Your task to perform on an android device: open sync settings in chrome Image 0: 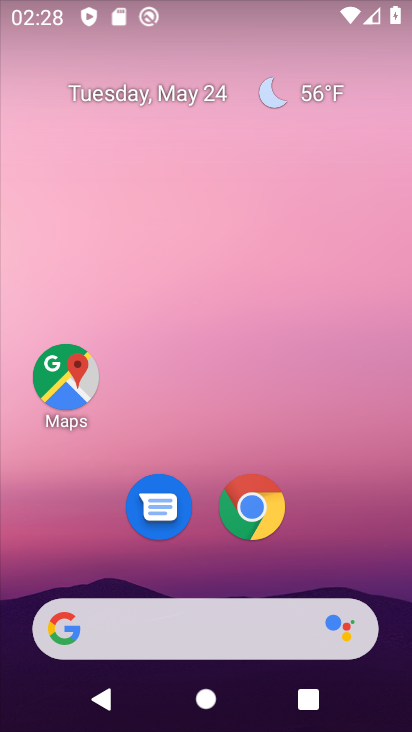
Step 0: click (263, 526)
Your task to perform on an android device: open sync settings in chrome Image 1: 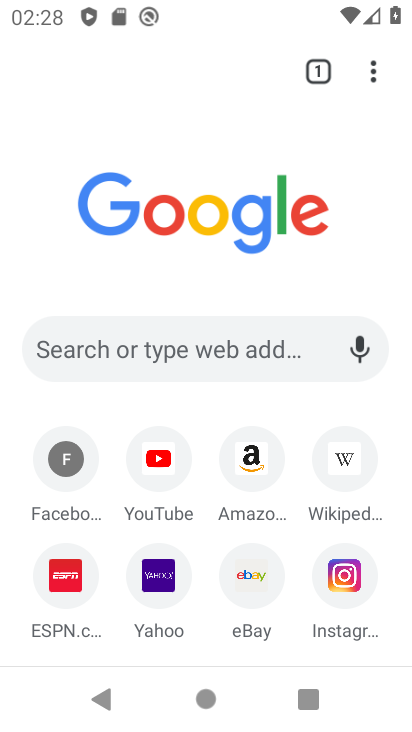
Step 1: click (379, 60)
Your task to perform on an android device: open sync settings in chrome Image 2: 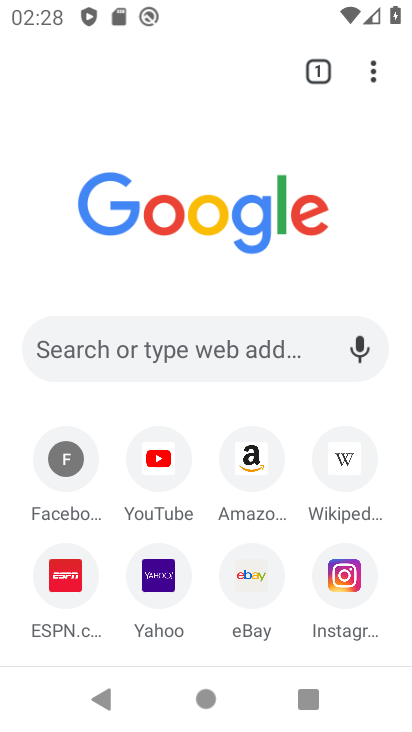
Step 2: click (394, 69)
Your task to perform on an android device: open sync settings in chrome Image 3: 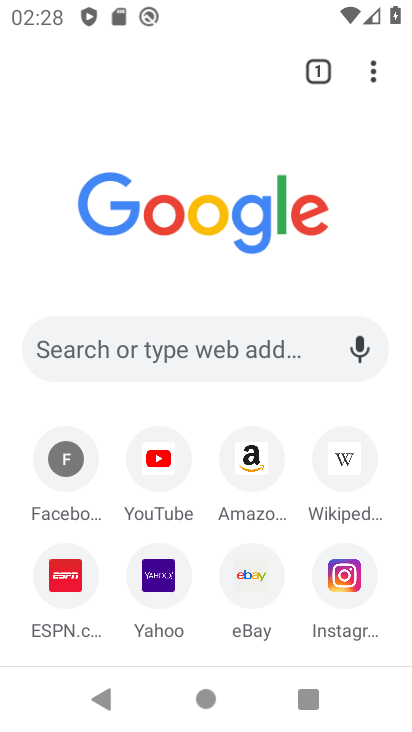
Step 3: click (375, 77)
Your task to perform on an android device: open sync settings in chrome Image 4: 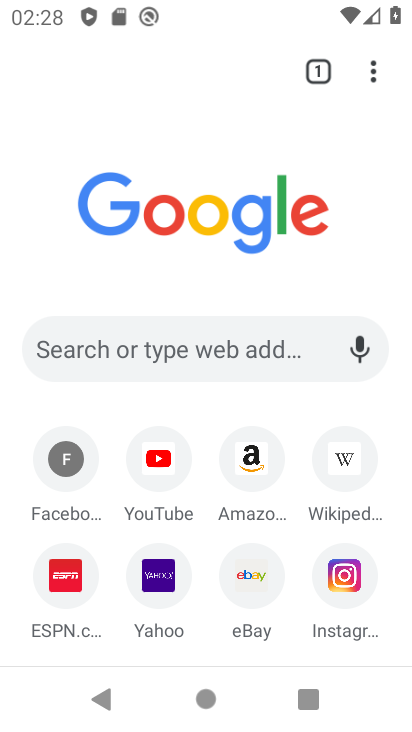
Step 4: click (375, 76)
Your task to perform on an android device: open sync settings in chrome Image 5: 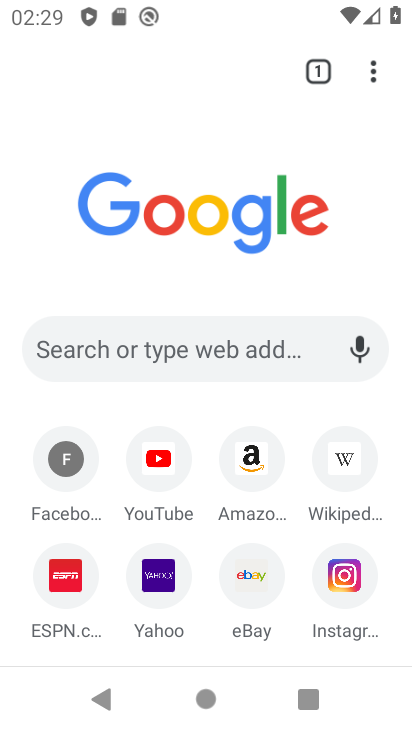
Step 5: click (378, 78)
Your task to perform on an android device: open sync settings in chrome Image 6: 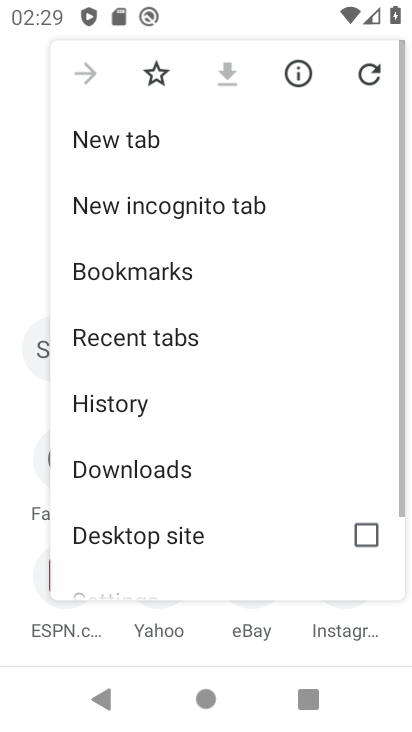
Step 6: drag from (206, 546) to (271, 109)
Your task to perform on an android device: open sync settings in chrome Image 7: 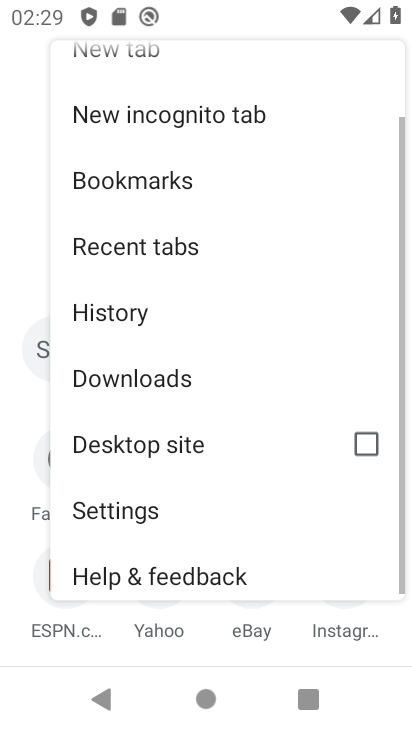
Step 7: click (114, 507)
Your task to perform on an android device: open sync settings in chrome Image 8: 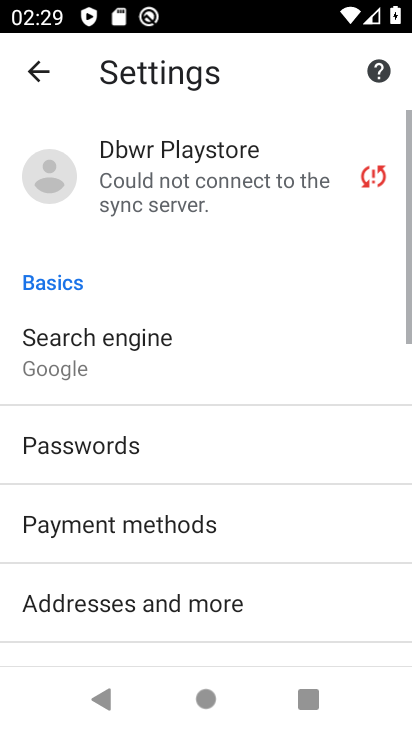
Step 8: click (212, 218)
Your task to perform on an android device: open sync settings in chrome Image 9: 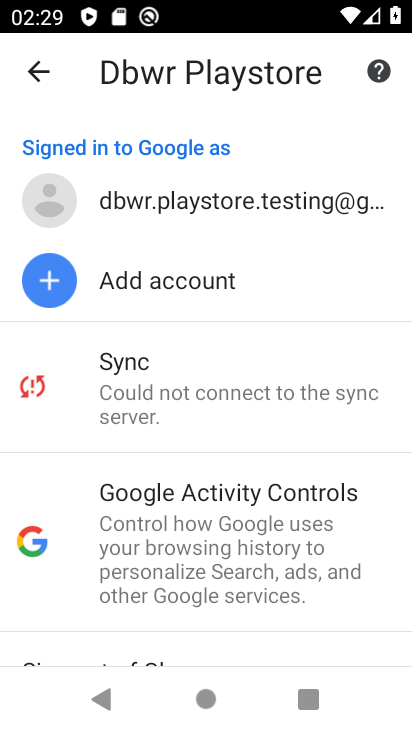
Step 9: click (173, 380)
Your task to perform on an android device: open sync settings in chrome Image 10: 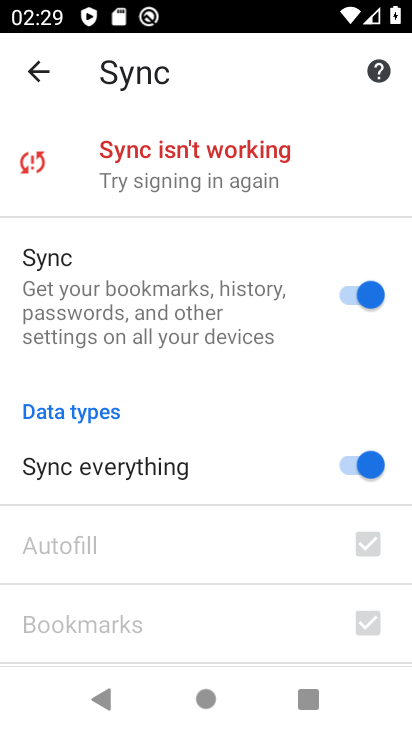
Step 10: task complete